Your task to perform on an android device: search for starred emails in the gmail app Image 0: 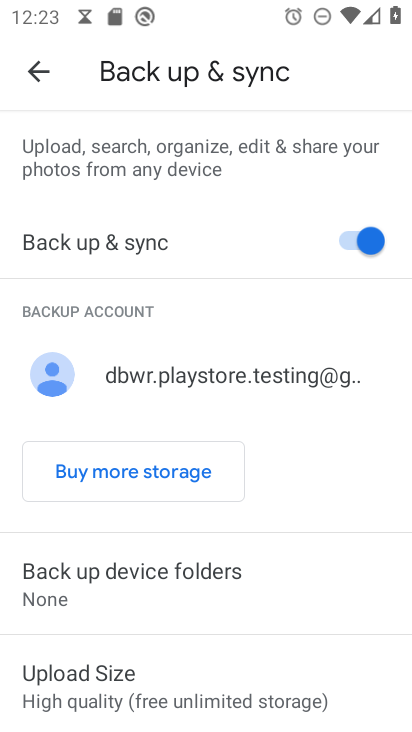
Step 0: press home button
Your task to perform on an android device: search for starred emails in the gmail app Image 1: 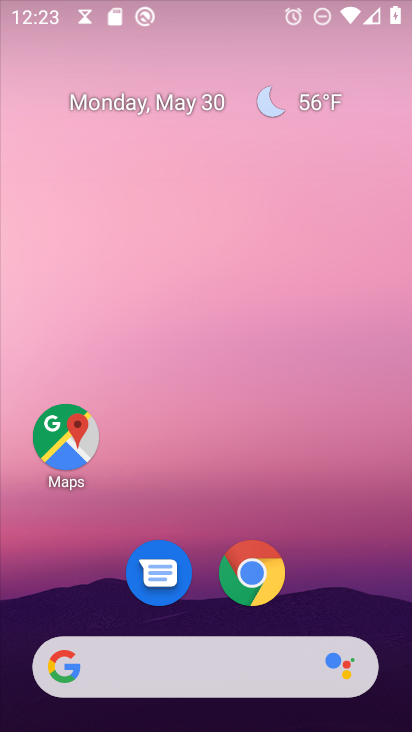
Step 1: drag from (356, 654) to (272, 0)
Your task to perform on an android device: search for starred emails in the gmail app Image 2: 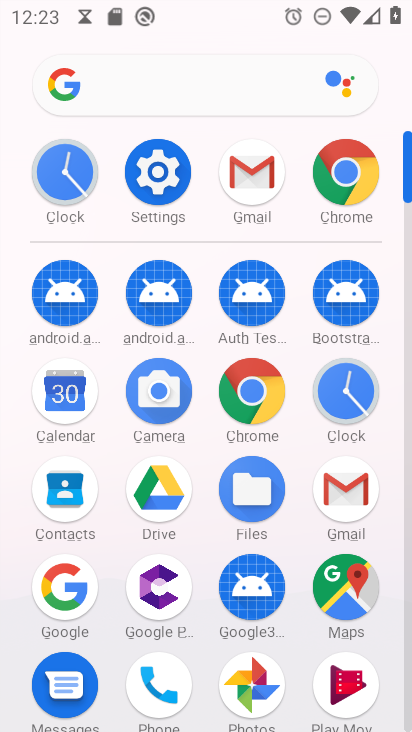
Step 2: click (351, 491)
Your task to perform on an android device: search for starred emails in the gmail app Image 3: 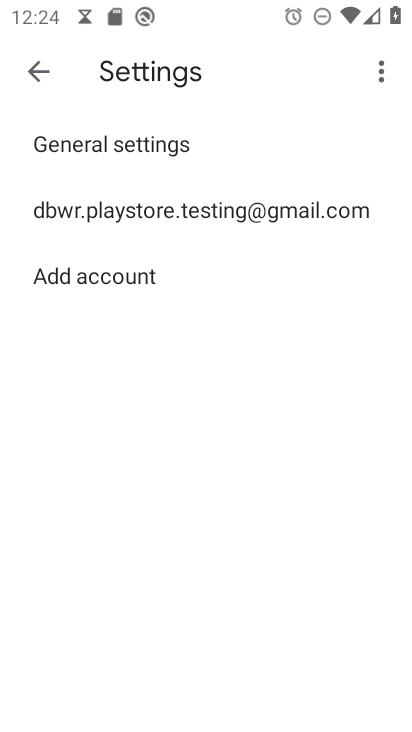
Step 3: press back button
Your task to perform on an android device: search for starred emails in the gmail app Image 4: 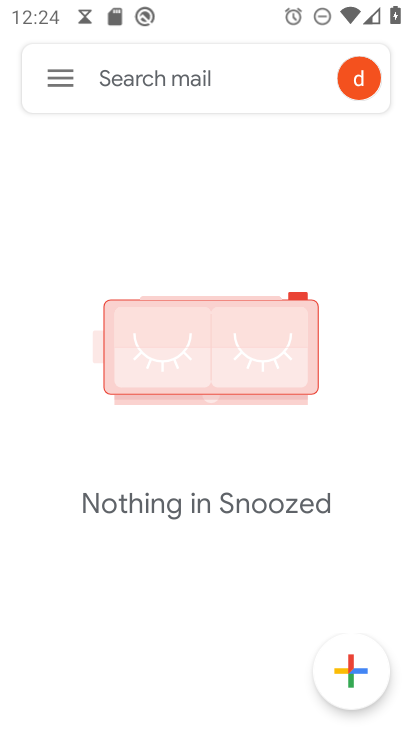
Step 4: click (35, 77)
Your task to perform on an android device: search for starred emails in the gmail app Image 5: 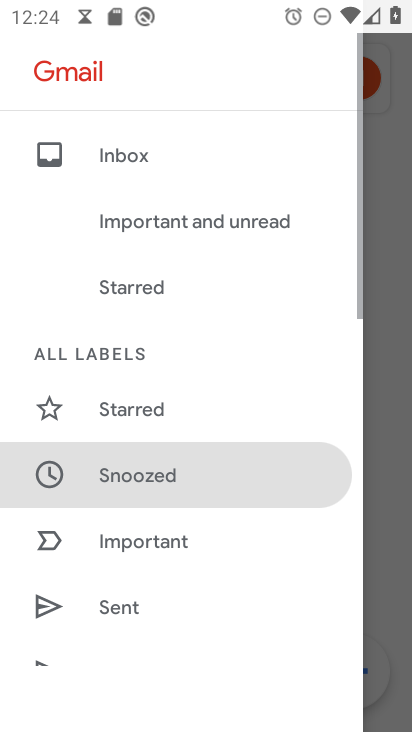
Step 5: drag from (136, 203) to (195, 346)
Your task to perform on an android device: search for starred emails in the gmail app Image 6: 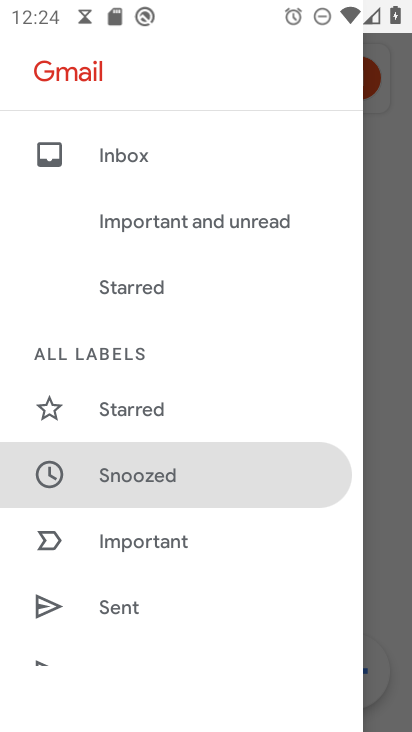
Step 6: click (163, 423)
Your task to perform on an android device: search for starred emails in the gmail app Image 7: 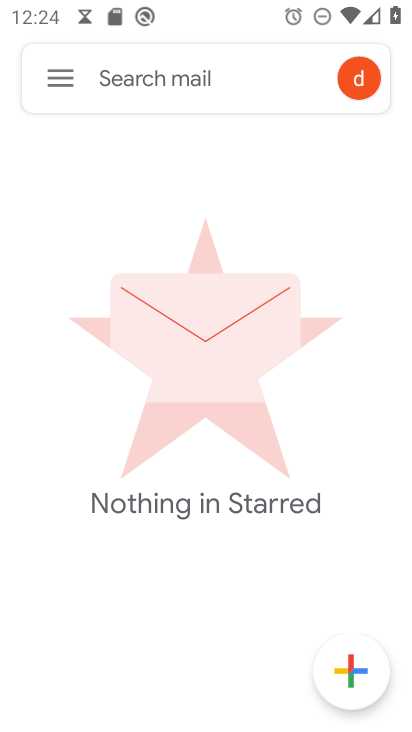
Step 7: task complete